Your task to perform on an android device: Search for usb-c to usb-a on amazon, select the first entry, and add it to the cart. Image 0: 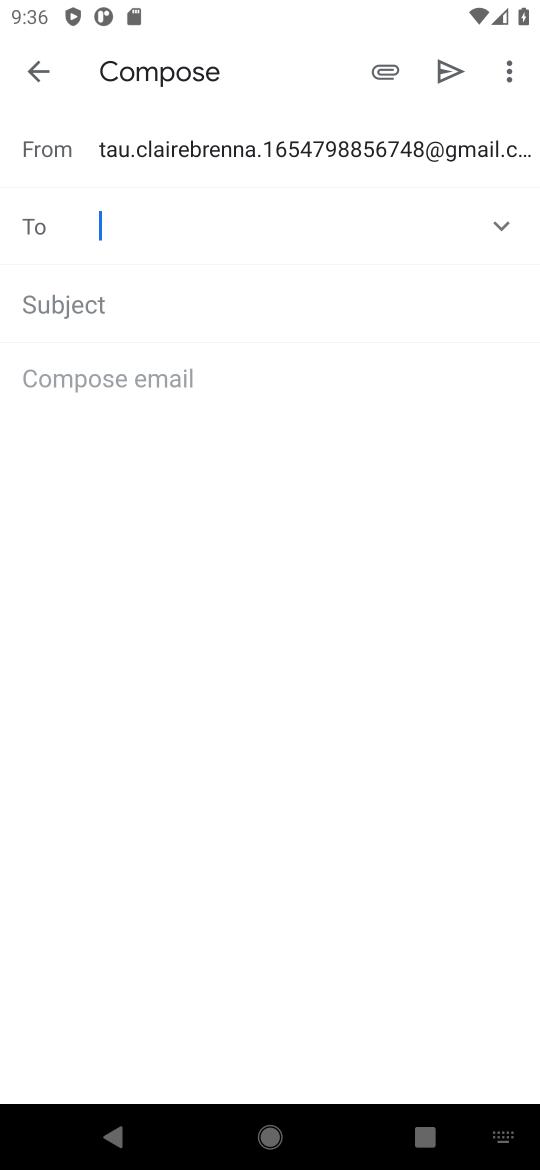
Step 0: press home button
Your task to perform on an android device: Search for usb-c to usb-a on amazon, select the first entry, and add it to the cart. Image 1: 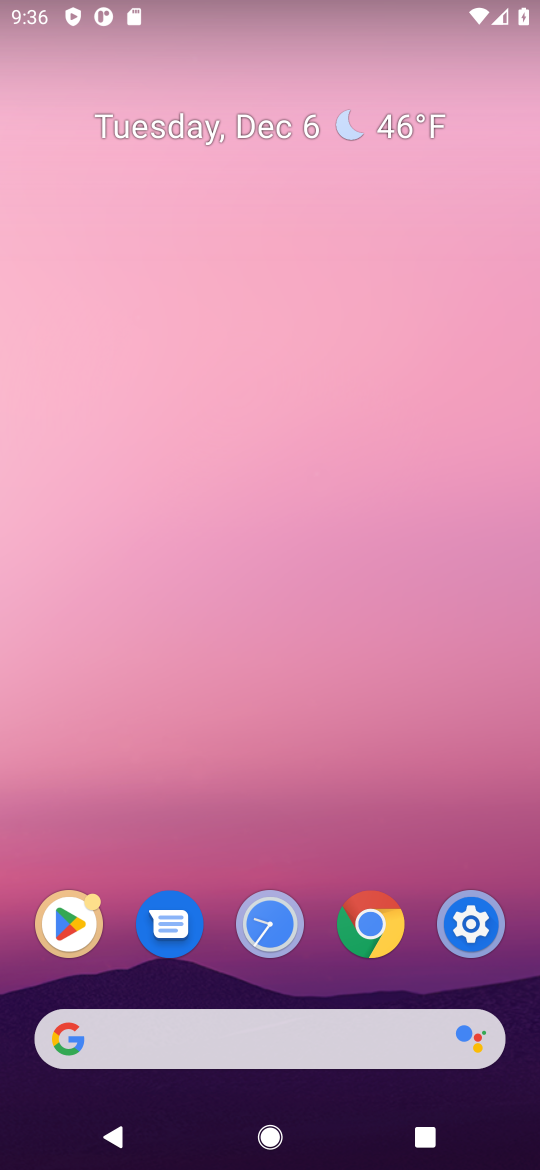
Step 1: click (300, 1038)
Your task to perform on an android device: Search for usb-c to usb-a on amazon, select the first entry, and add it to the cart. Image 2: 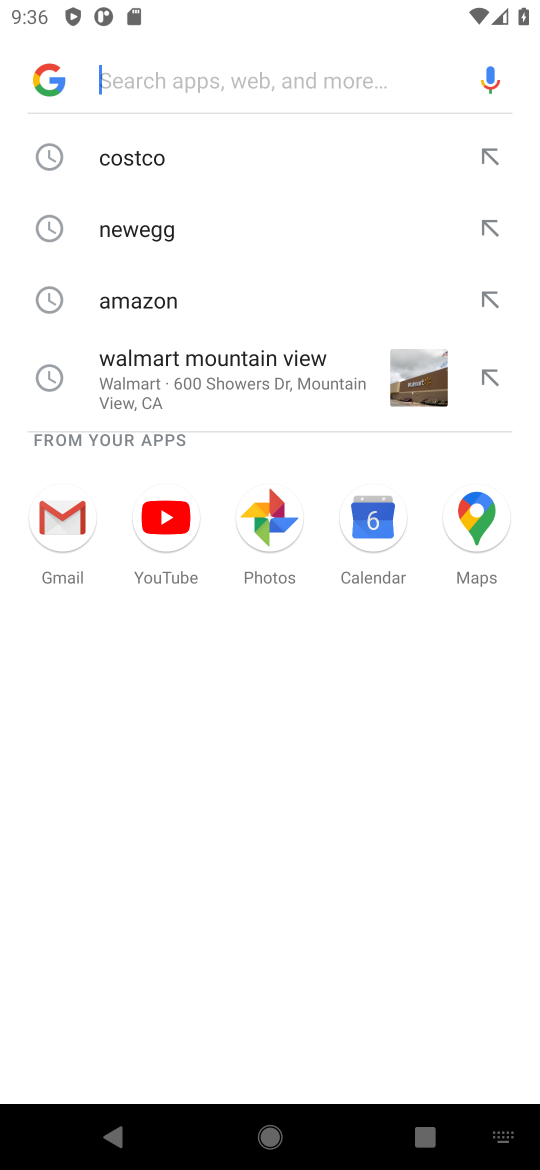
Step 2: type "amazon"
Your task to perform on an android device: Search for usb-c to usb-a on amazon, select the first entry, and add it to the cart. Image 3: 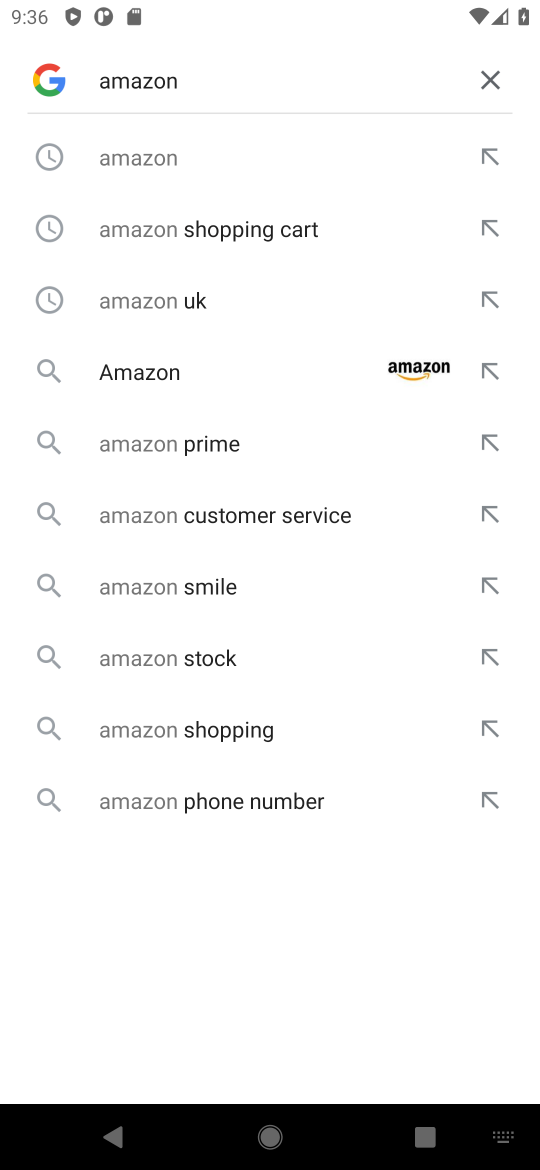
Step 3: click (128, 148)
Your task to perform on an android device: Search for usb-c to usb-a on amazon, select the first entry, and add it to the cart. Image 4: 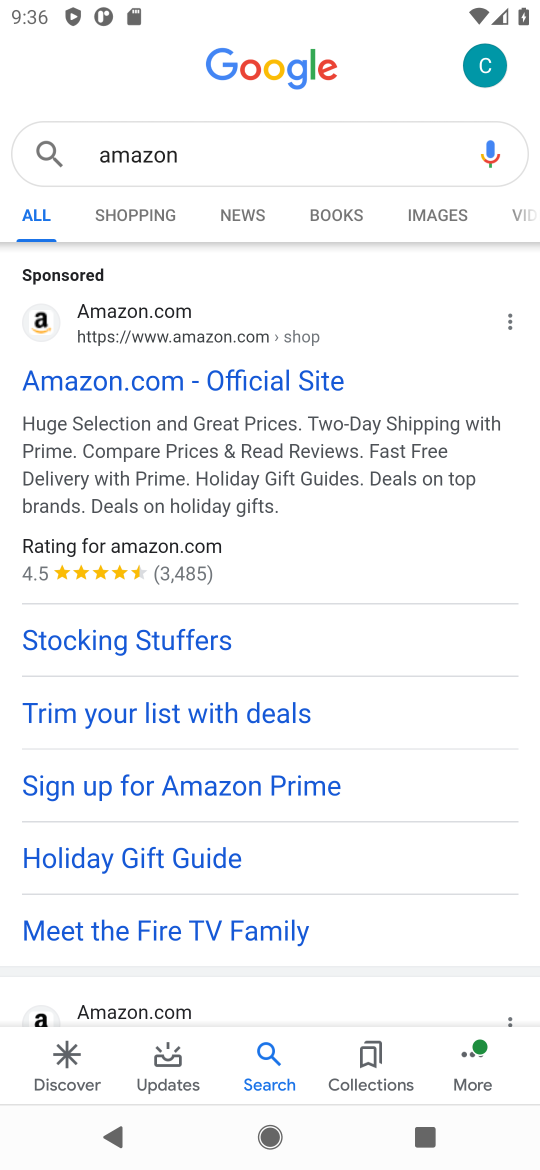
Step 4: click (71, 373)
Your task to perform on an android device: Search for usb-c to usb-a on amazon, select the first entry, and add it to the cart. Image 5: 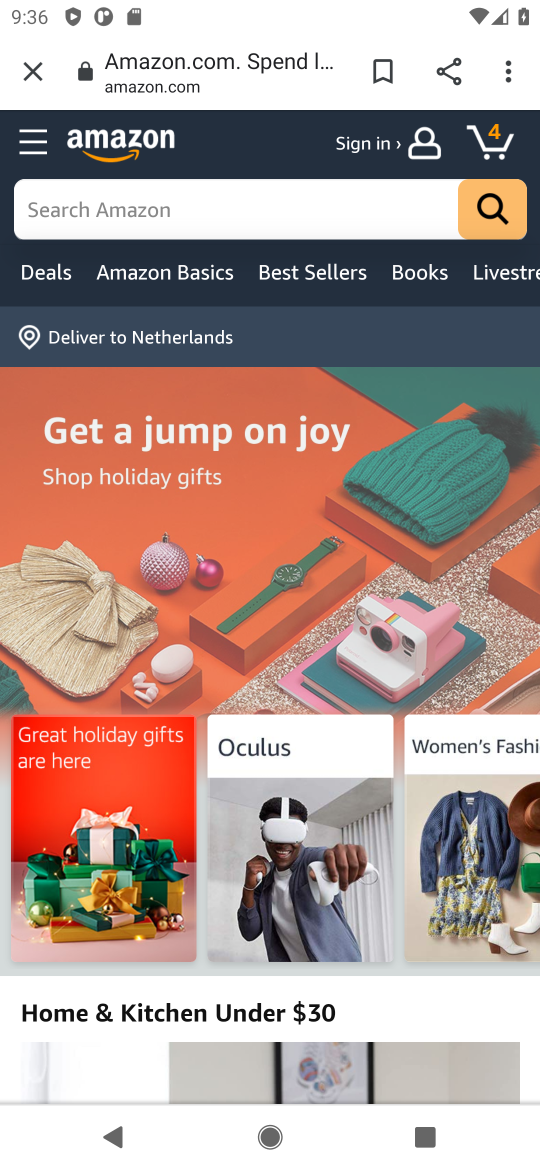
Step 5: click (206, 219)
Your task to perform on an android device: Search for usb-c to usb-a on amazon, select the first entry, and add it to the cart. Image 6: 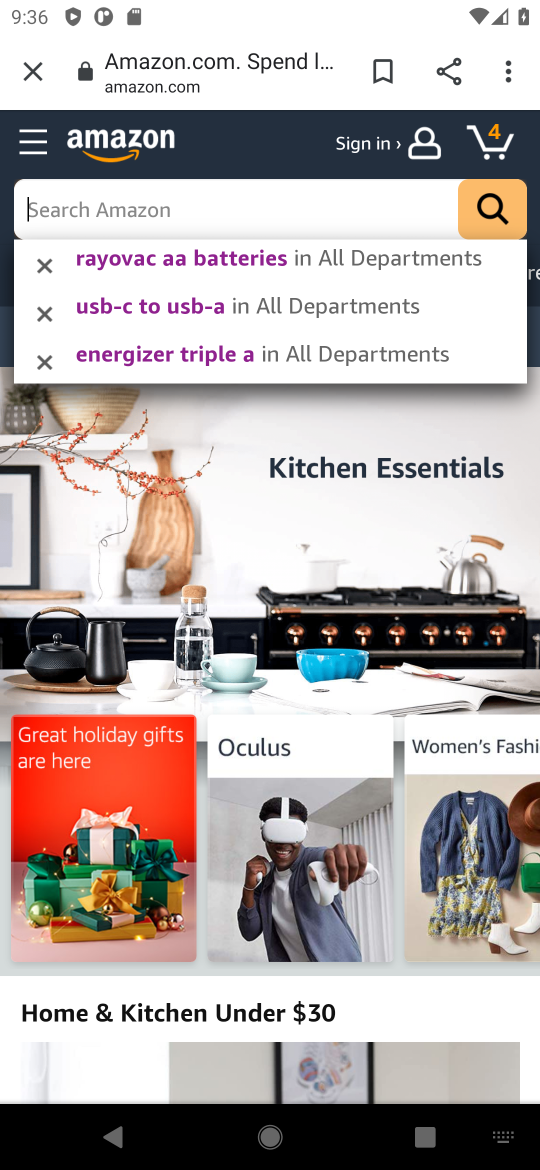
Step 6: type "usb-c to usb-a"
Your task to perform on an android device: Search for usb-c to usb-a on amazon, select the first entry, and add it to the cart. Image 7: 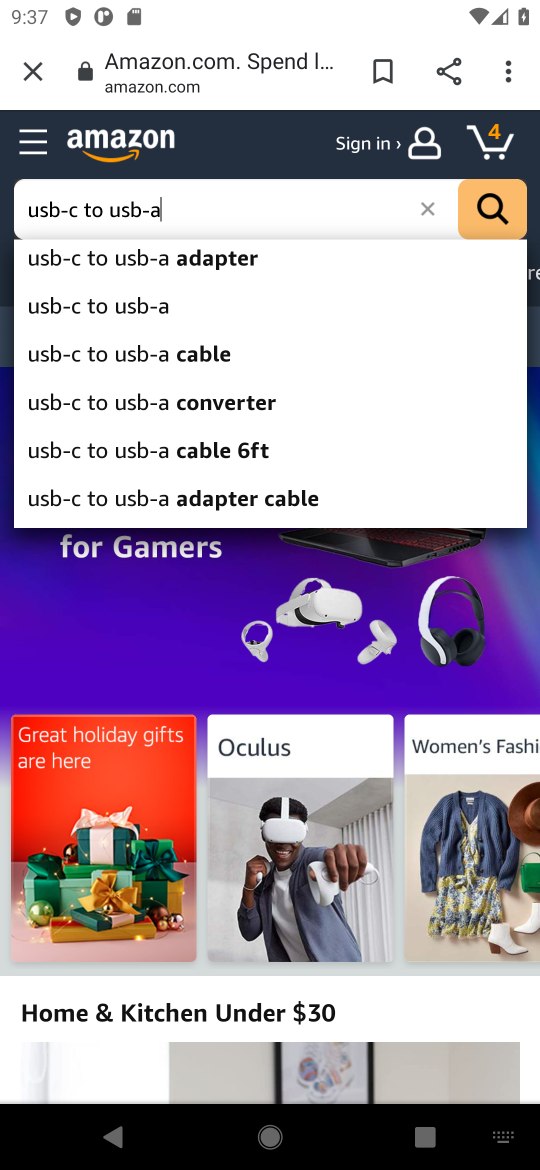
Step 7: click (479, 223)
Your task to perform on an android device: Search for usb-c to usb-a on amazon, select the first entry, and add it to the cart. Image 8: 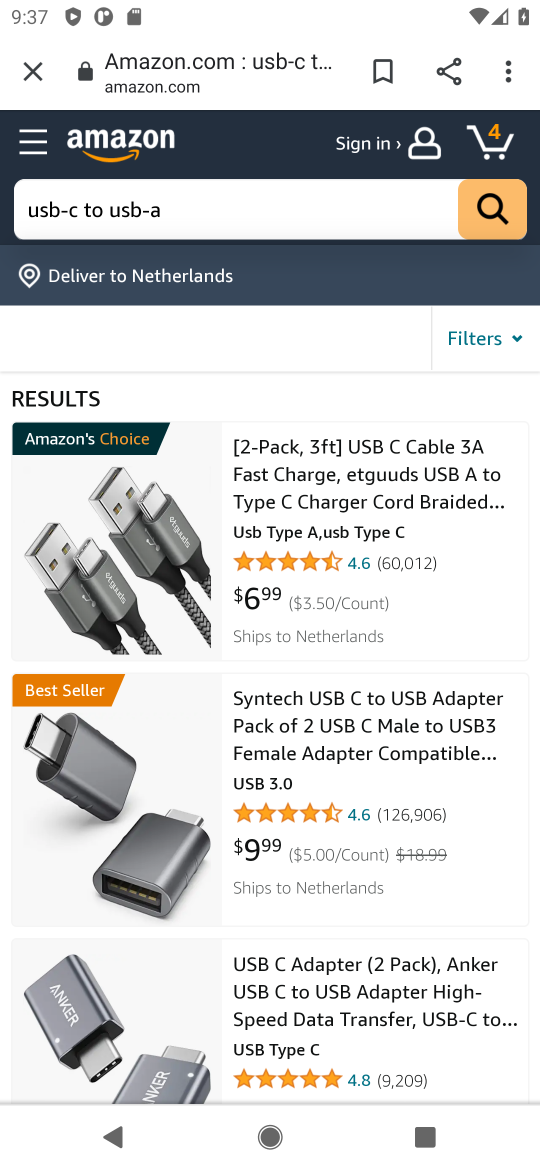
Step 8: click (304, 524)
Your task to perform on an android device: Search for usb-c to usb-a on amazon, select the first entry, and add it to the cart. Image 9: 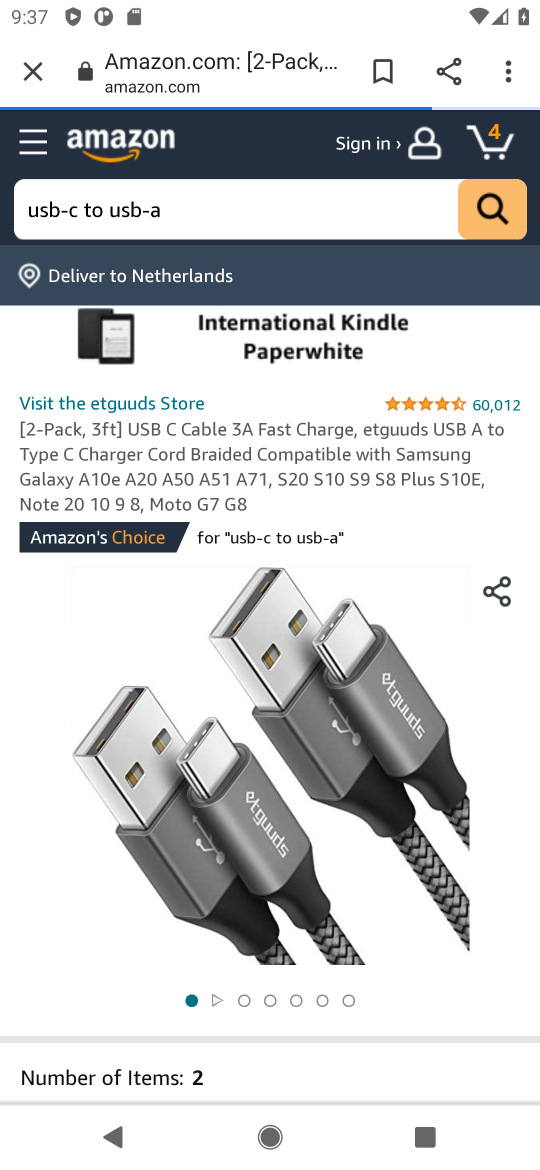
Step 9: drag from (70, 983) to (75, 268)
Your task to perform on an android device: Search for usb-c to usb-a on amazon, select the first entry, and add it to the cart. Image 10: 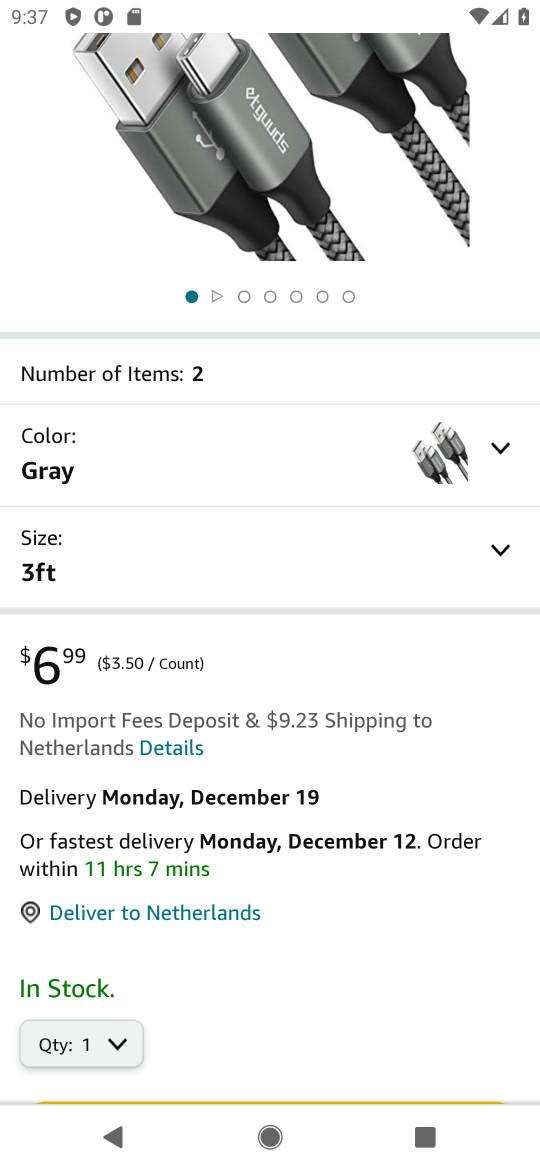
Step 10: drag from (307, 1003) to (363, 218)
Your task to perform on an android device: Search for usb-c to usb-a on amazon, select the first entry, and add it to the cart. Image 11: 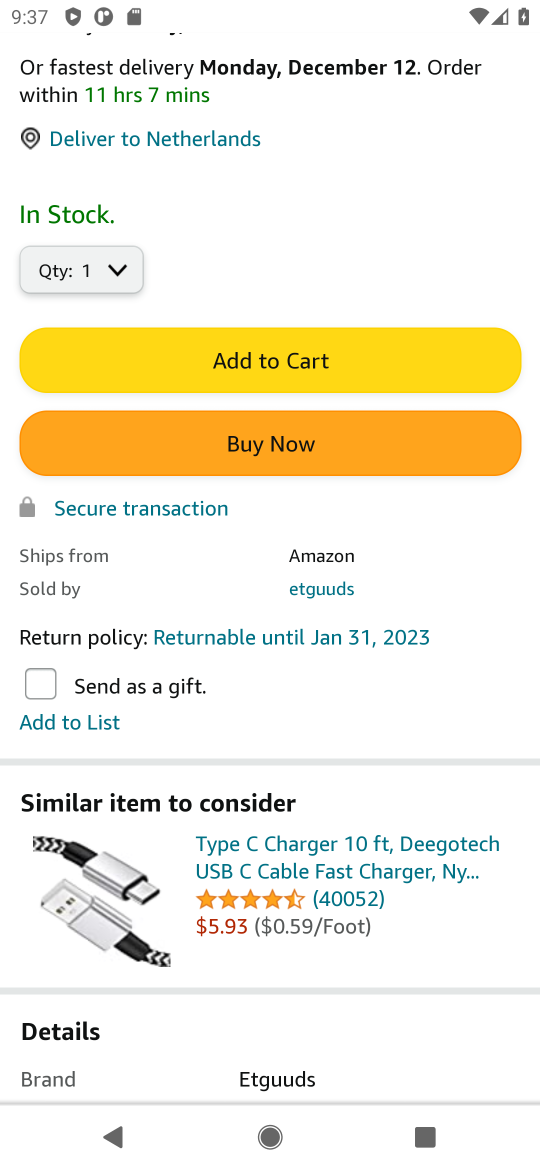
Step 11: click (326, 362)
Your task to perform on an android device: Search for usb-c to usb-a on amazon, select the first entry, and add it to the cart. Image 12: 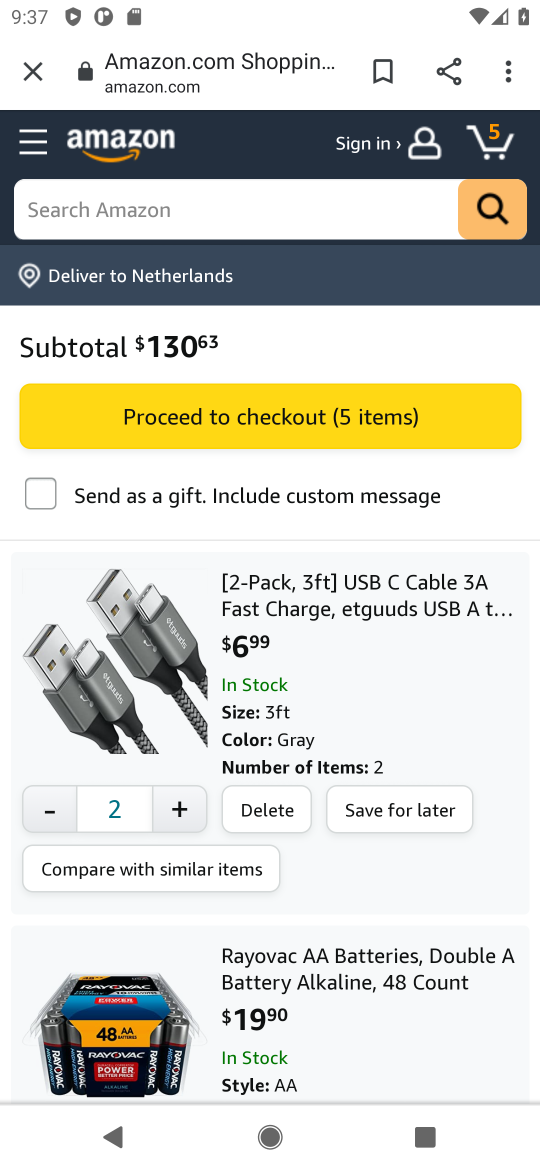
Step 12: task complete